Your task to perform on an android device: Open the web browser Image 0: 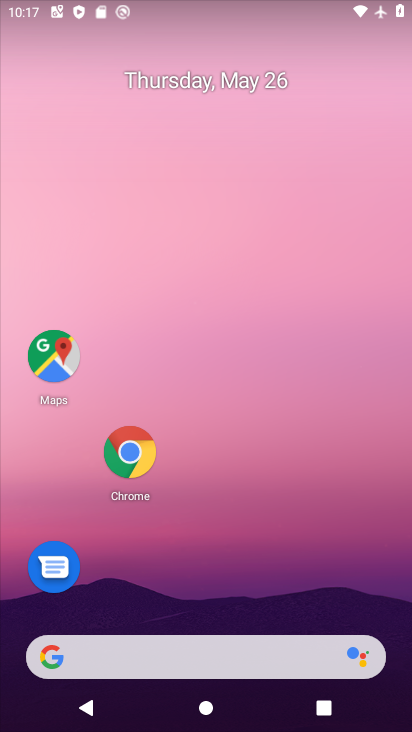
Step 0: click (132, 463)
Your task to perform on an android device: Open the web browser Image 1: 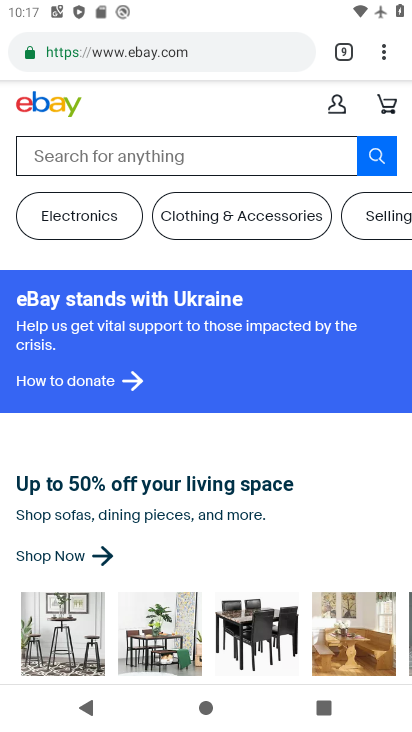
Step 1: task complete